Your task to perform on an android device: Clear the shopping cart on ebay.com. Add usb-c to usb-a to the cart on ebay.com Image 0: 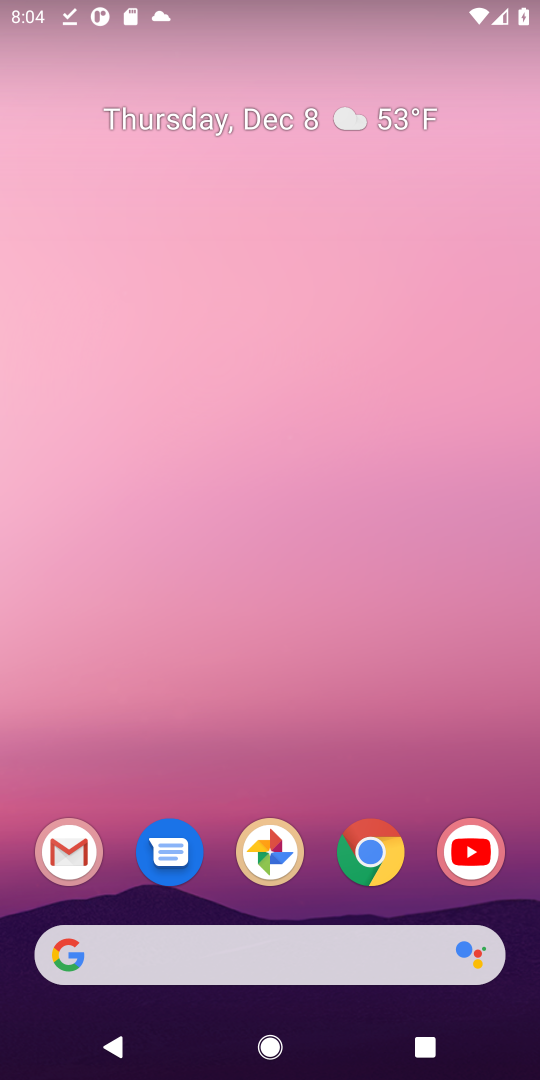
Step 0: click (224, 965)
Your task to perform on an android device: Clear the shopping cart on ebay.com. Add usb-c to usb-a to the cart on ebay.com Image 1: 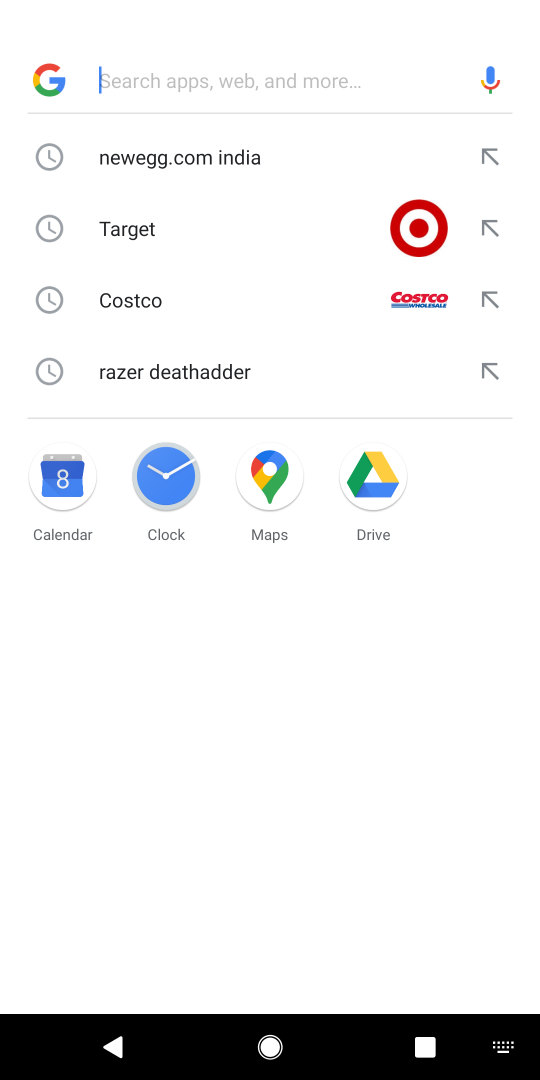
Step 1: type "ebay"
Your task to perform on an android device: Clear the shopping cart on ebay.com. Add usb-c to usb-a to the cart on ebay.com Image 2: 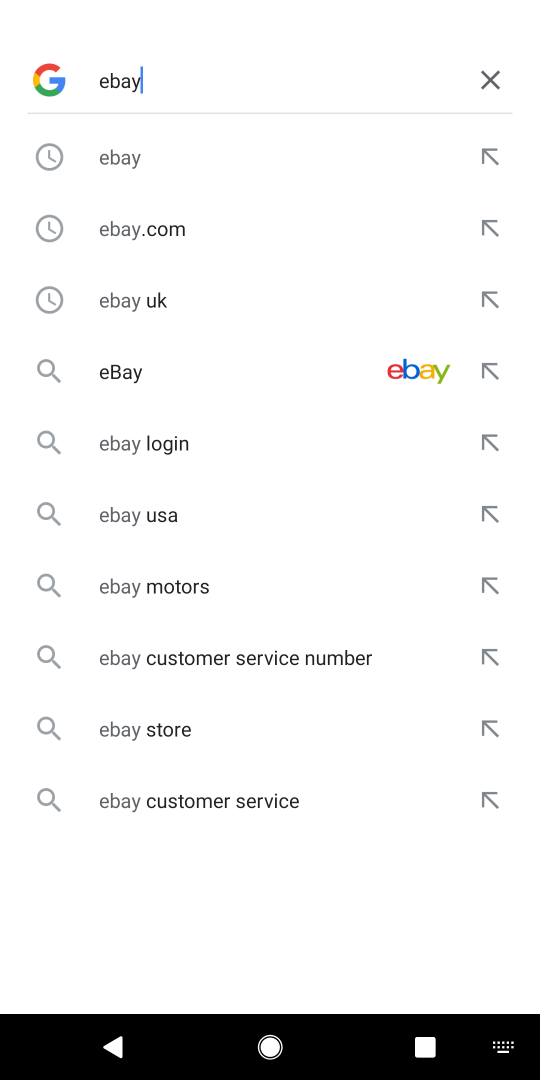
Step 2: click (237, 382)
Your task to perform on an android device: Clear the shopping cart on ebay.com. Add usb-c to usb-a to the cart on ebay.com Image 3: 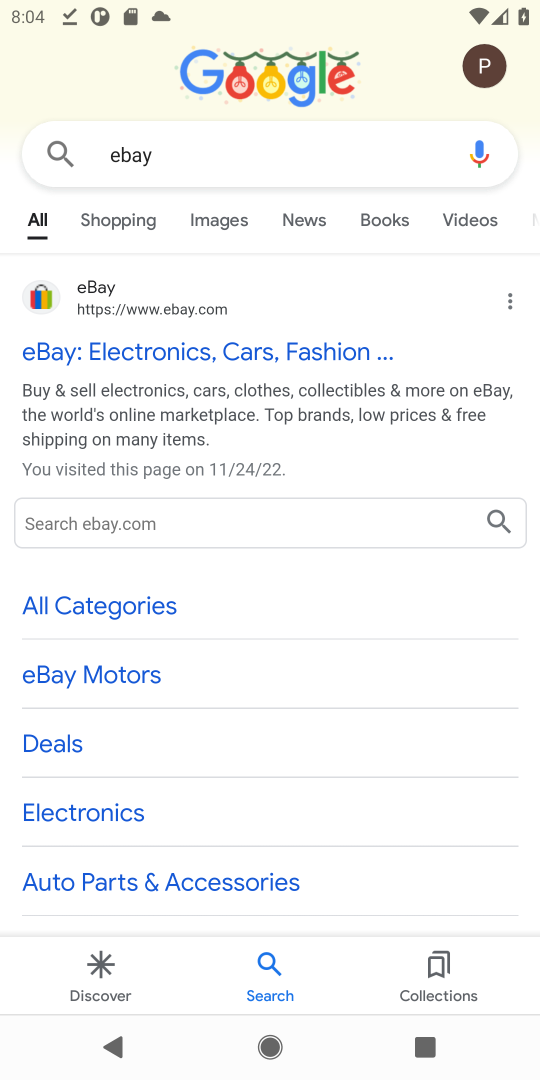
Step 3: click (174, 366)
Your task to perform on an android device: Clear the shopping cart on ebay.com. Add usb-c to usb-a to the cart on ebay.com Image 4: 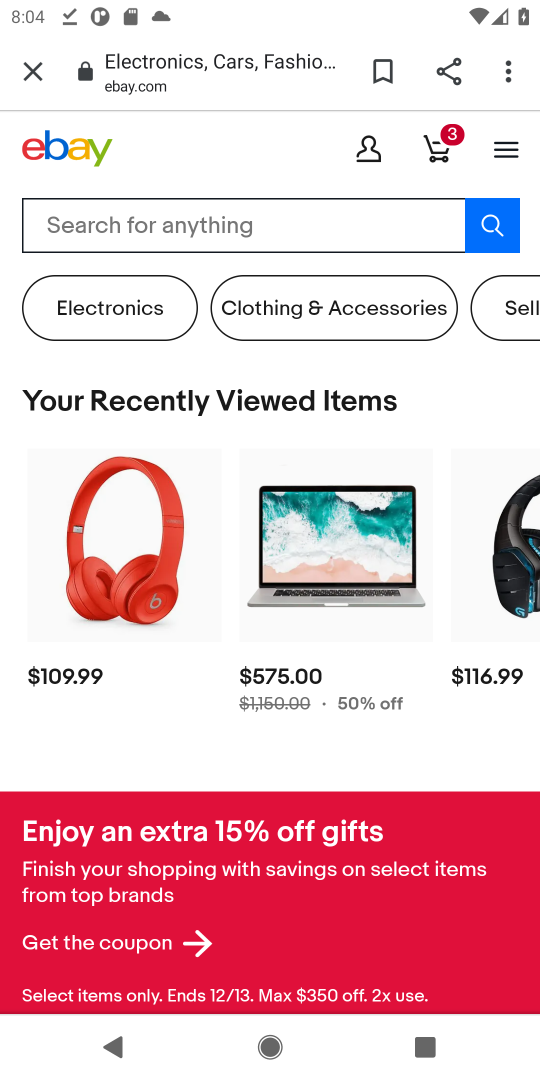
Step 4: task complete